Your task to perform on an android device: make emails show in primary in the gmail app Image 0: 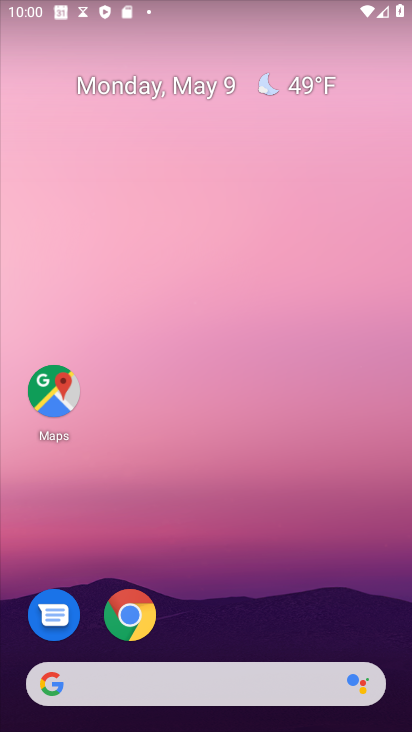
Step 0: drag from (215, 614) to (215, 170)
Your task to perform on an android device: make emails show in primary in the gmail app Image 1: 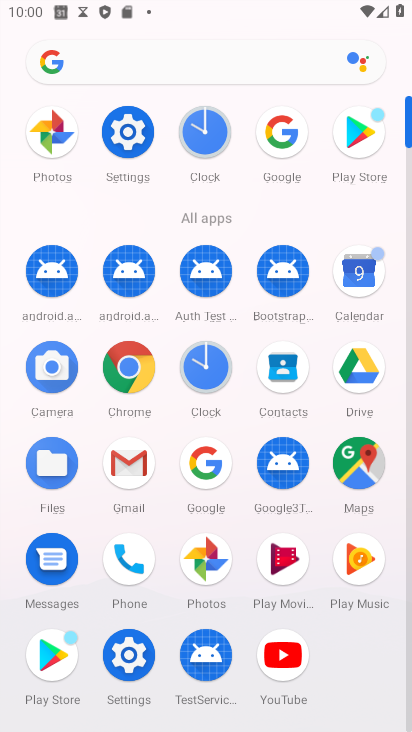
Step 1: click (139, 467)
Your task to perform on an android device: make emails show in primary in the gmail app Image 2: 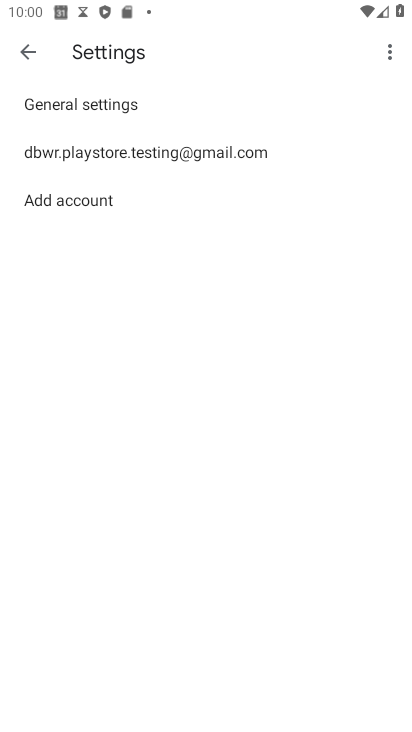
Step 2: click (171, 159)
Your task to perform on an android device: make emails show in primary in the gmail app Image 3: 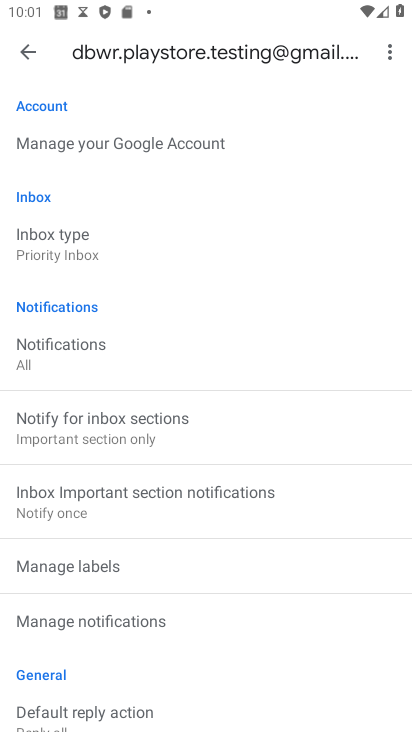
Step 3: click (98, 246)
Your task to perform on an android device: make emails show in primary in the gmail app Image 4: 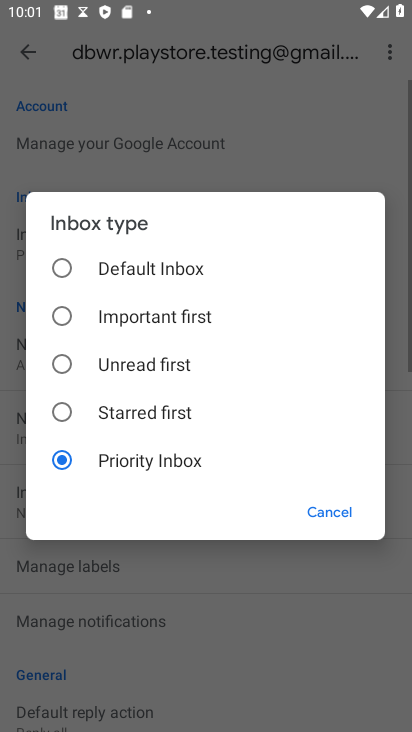
Step 4: click (126, 281)
Your task to perform on an android device: make emails show in primary in the gmail app Image 5: 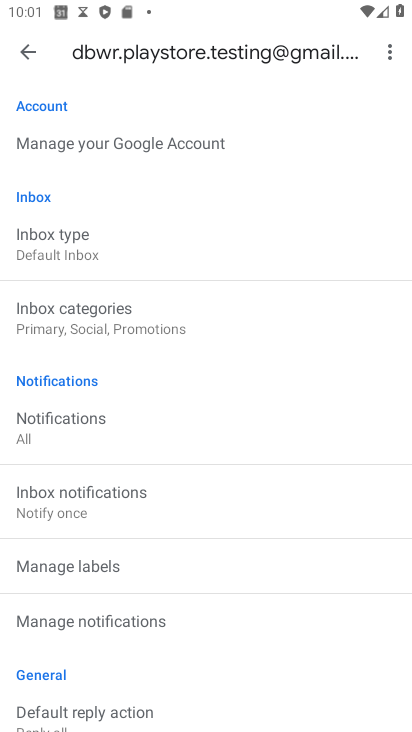
Step 5: press back button
Your task to perform on an android device: make emails show in primary in the gmail app Image 6: 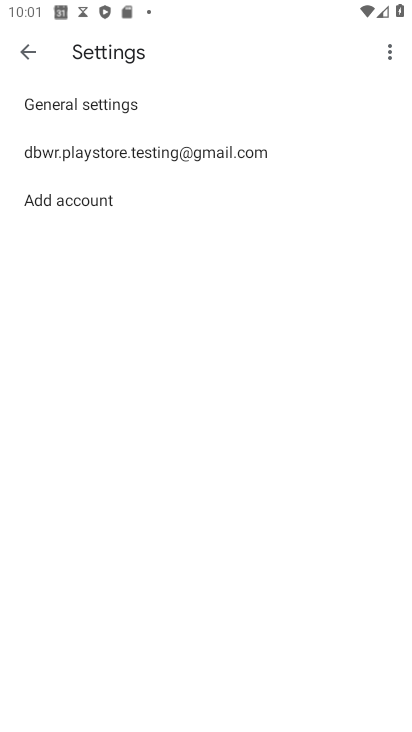
Step 6: press back button
Your task to perform on an android device: make emails show in primary in the gmail app Image 7: 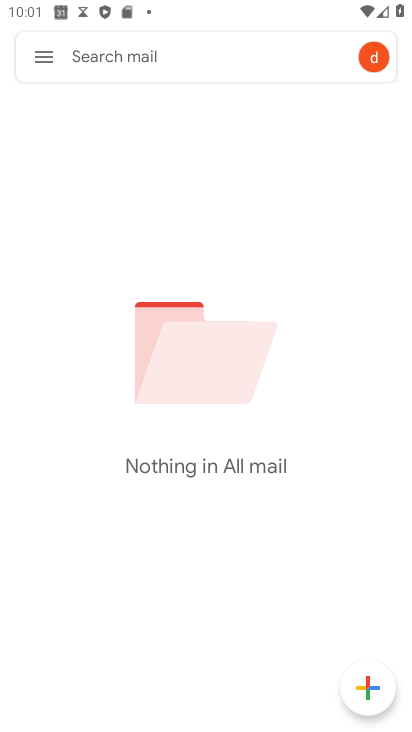
Step 7: click (48, 51)
Your task to perform on an android device: make emails show in primary in the gmail app Image 8: 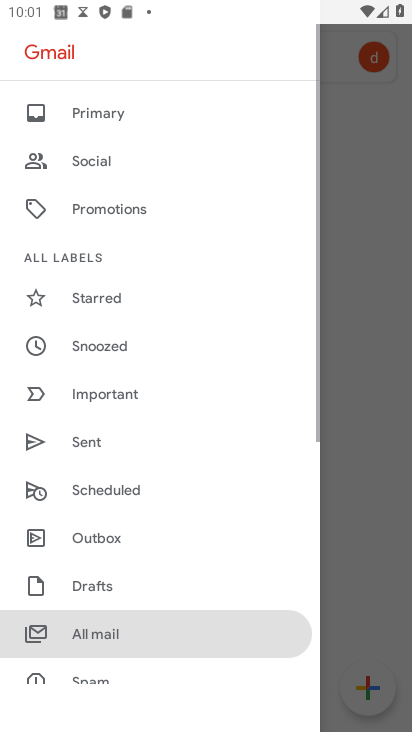
Step 8: click (73, 108)
Your task to perform on an android device: make emails show in primary in the gmail app Image 9: 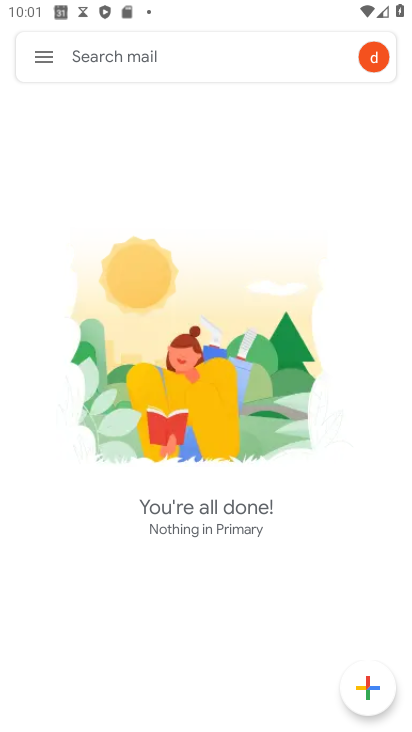
Step 9: task complete